Your task to perform on an android device: star an email in the gmail app Image 0: 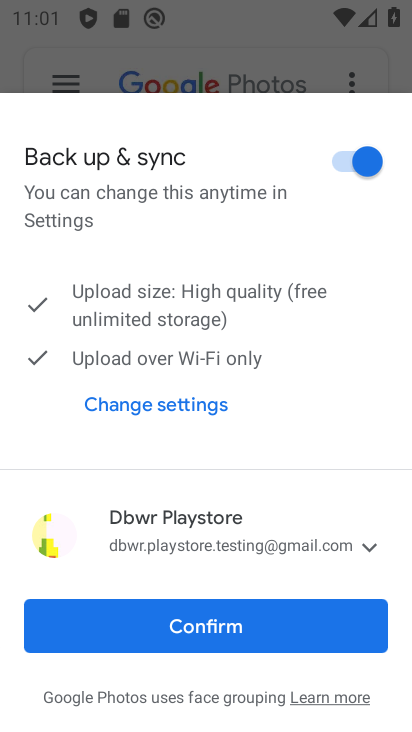
Step 0: press home button
Your task to perform on an android device: star an email in the gmail app Image 1: 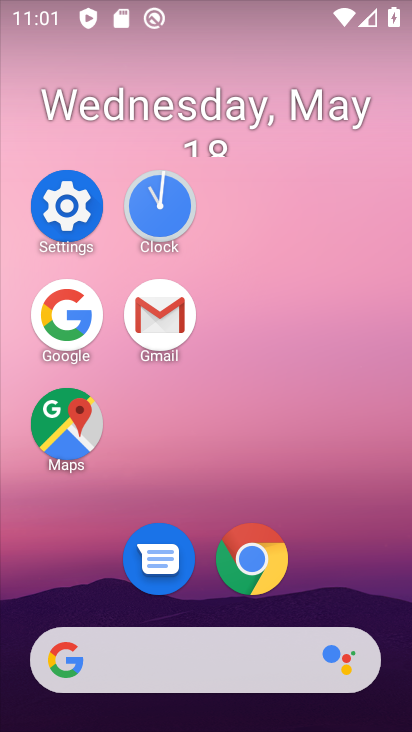
Step 1: click (181, 324)
Your task to perform on an android device: star an email in the gmail app Image 2: 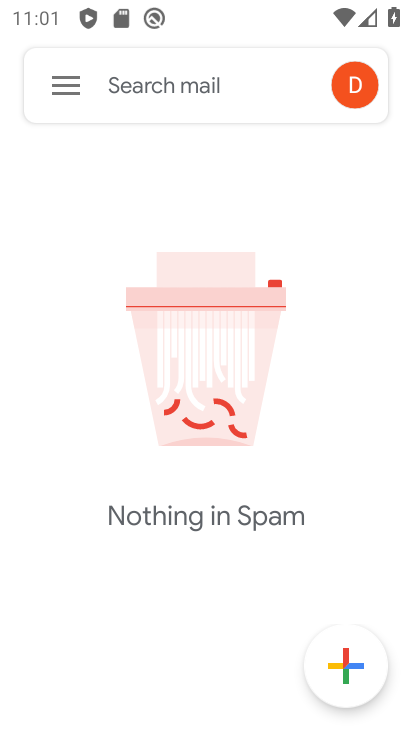
Step 2: click (61, 99)
Your task to perform on an android device: star an email in the gmail app Image 3: 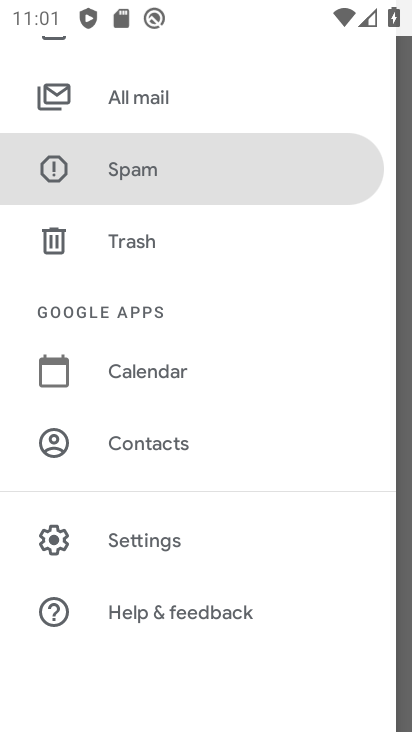
Step 3: click (223, 105)
Your task to perform on an android device: star an email in the gmail app Image 4: 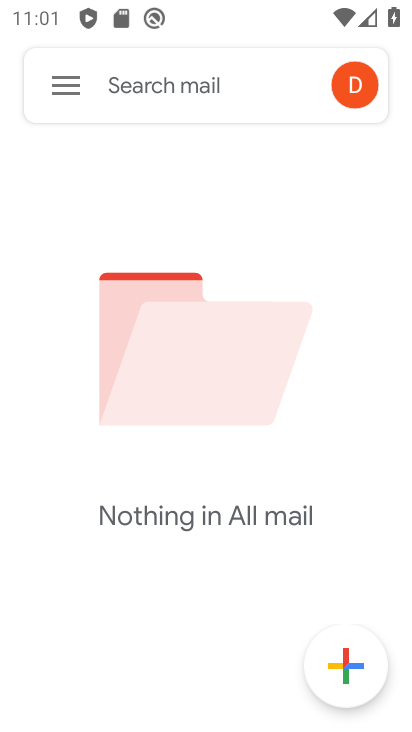
Step 4: task complete